Your task to perform on an android device: Find coffee shops on Maps Image 0: 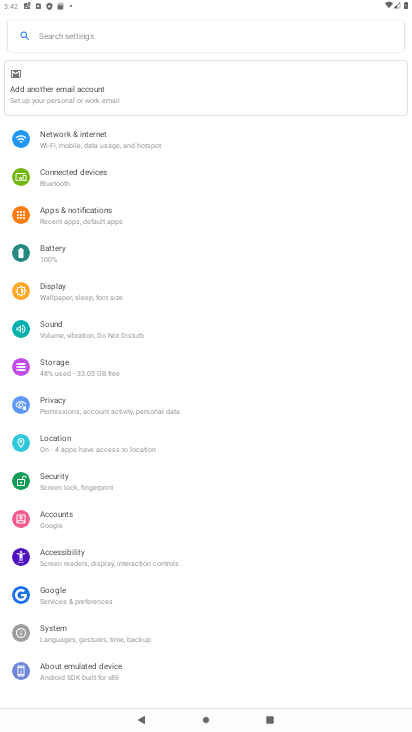
Step 0: press home button
Your task to perform on an android device: Find coffee shops on Maps Image 1: 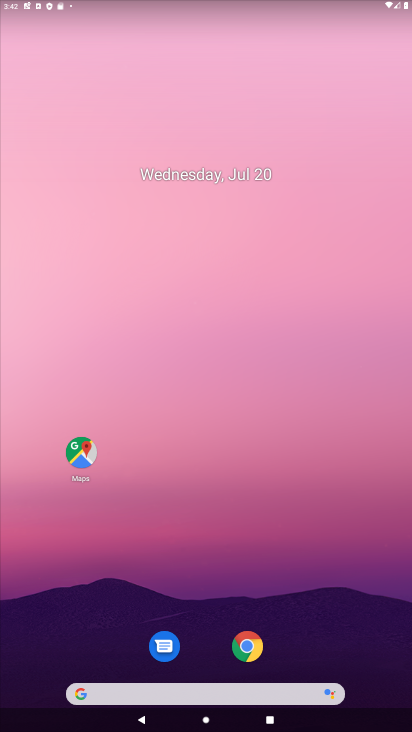
Step 1: click (92, 450)
Your task to perform on an android device: Find coffee shops on Maps Image 2: 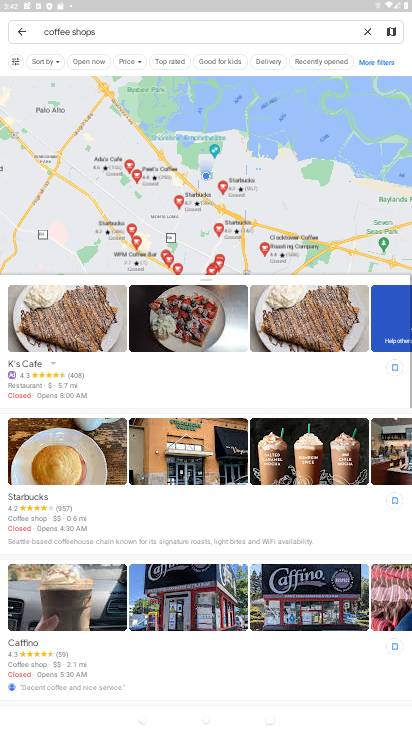
Step 2: click (346, 29)
Your task to perform on an android device: Find coffee shops on Maps Image 3: 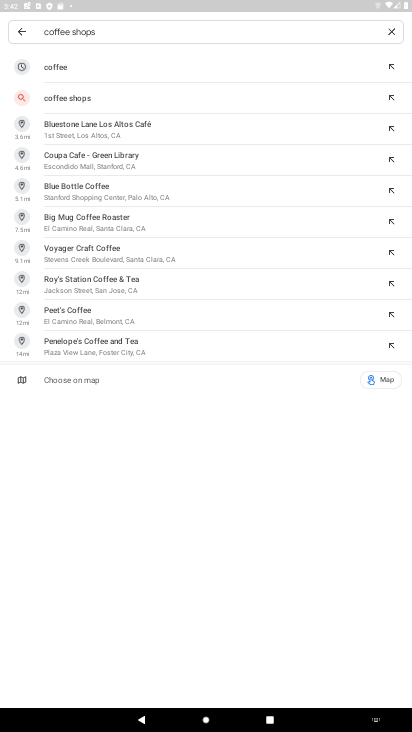
Step 3: task complete